Your task to perform on an android device: Open Amazon Image 0: 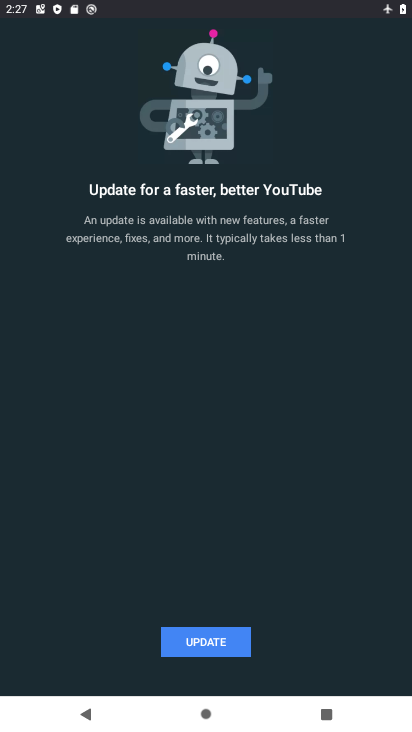
Step 0: press home button
Your task to perform on an android device: Open Amazon Image 1: 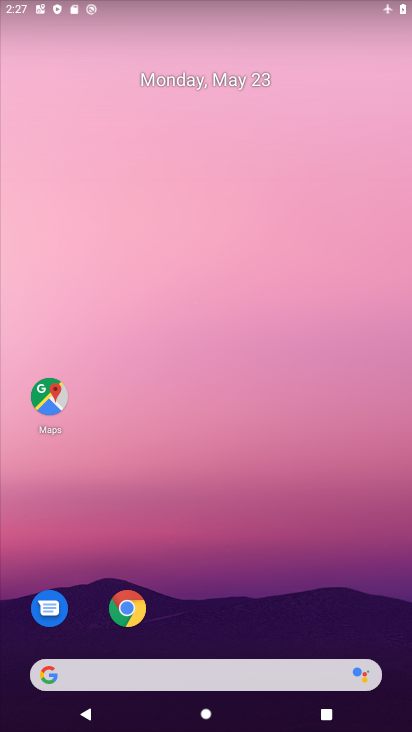
Step 1: click (126, 617)
Your task to perform on an android device: Open Amazon Image 2: 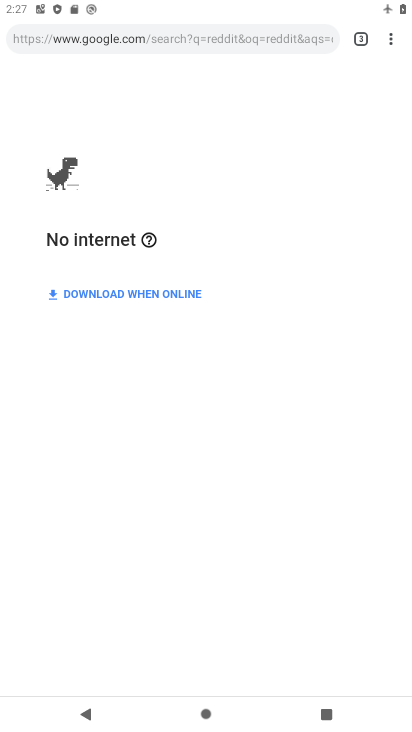
Step 2: click (363, 33)
Your task to perform on an android device: Open Amazon Image 3: 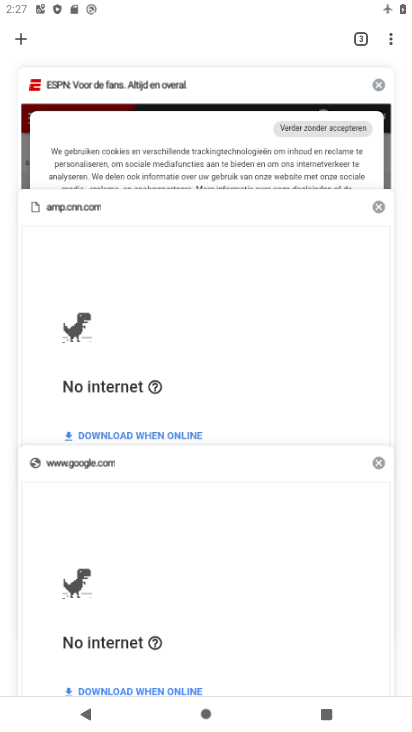
Step 3: click (18, 38)
Your task to perform on an android device: Open Amazon Image 4: 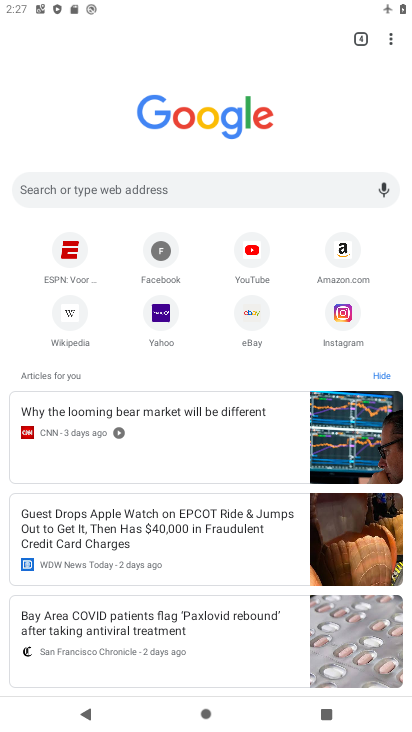
Step 4: click (349, 259)
Your task to perform on an android device: Open Amazon Image 5: 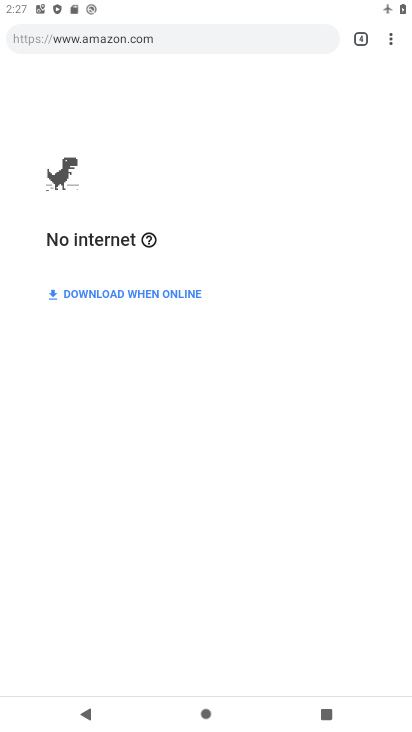
Step 5: task complete